Your task to perform on an android device: Open Chrome and go to settings Image 0: 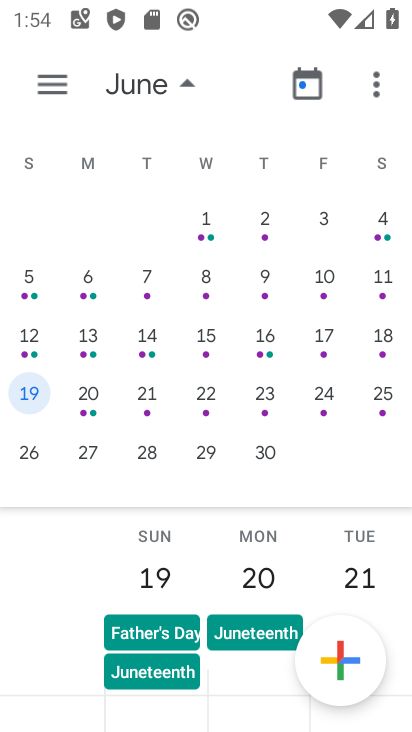
Step 0: press home button
Your task to perform on an android device: Open Chrome and go to settings Image 1: 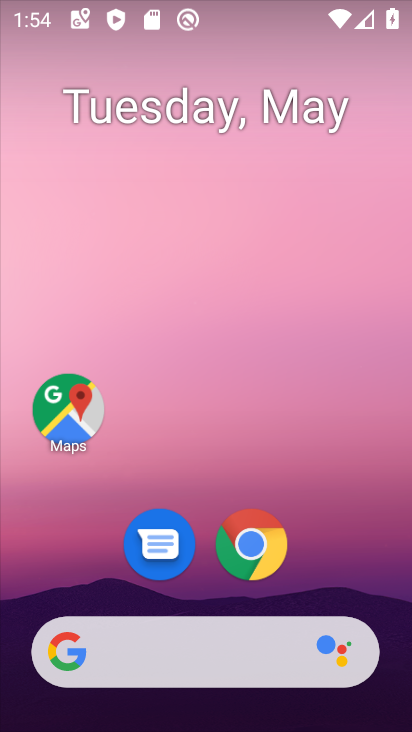
Step 1: click (254, 545)
Your task to perform on an android device: Open Chrome and go to settings Image 2: 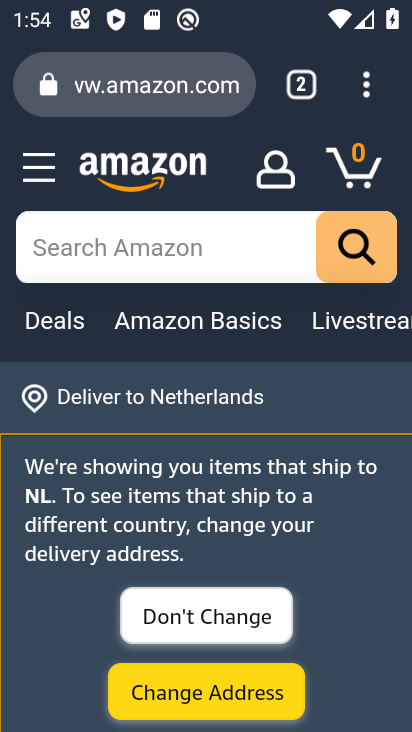
Step 2: task complete